Your task to perform on an android device: change notification settings in the gmail app Image 0: 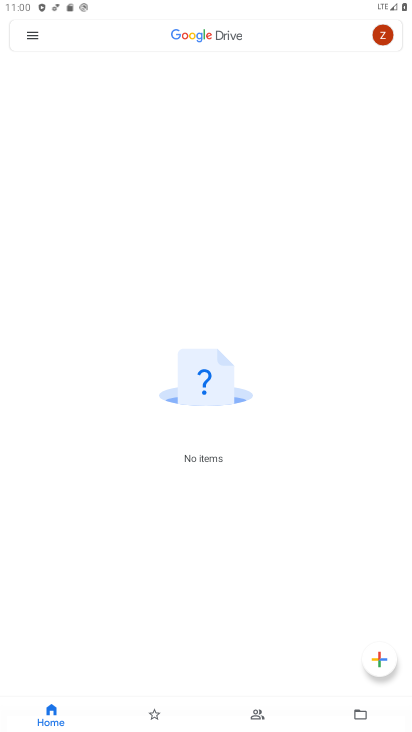
Step 0: drag from (286, 425) to (284, 9)
Your task to perform on an android device: change notification settings in the gmail app Image 1: 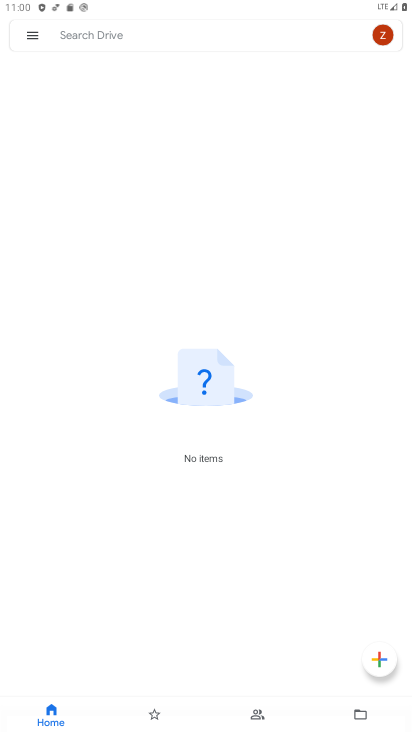
Step 1: press back button
Your task to perform on an android device: change notification settings in the gmail app Image 2: 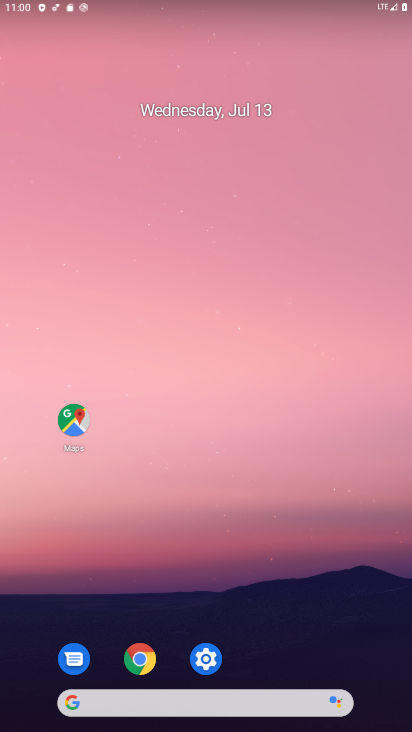
Step 2: drag from (276, 702) to (228, 3)
Your task to perform on an android device: change notification settings in the gmail app Image 3: 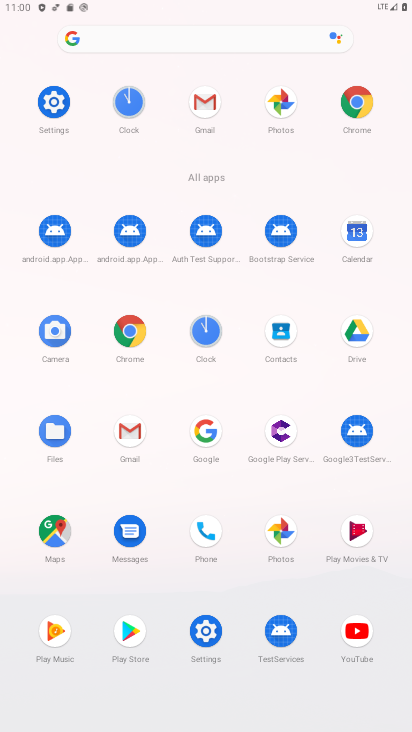
Step 3: click (213, 639)
Your task to perform on an android device: change notification settings in the gmail app Image 4: 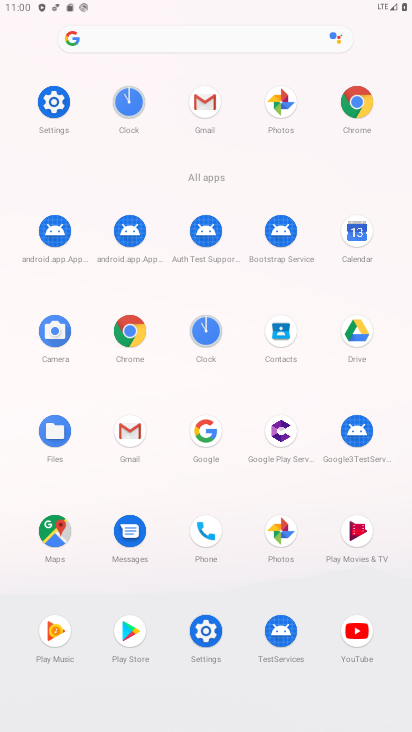
Step 4: click (214, 638)
Your task to perform on an android device: change notification settings in the gmail app Image 5: 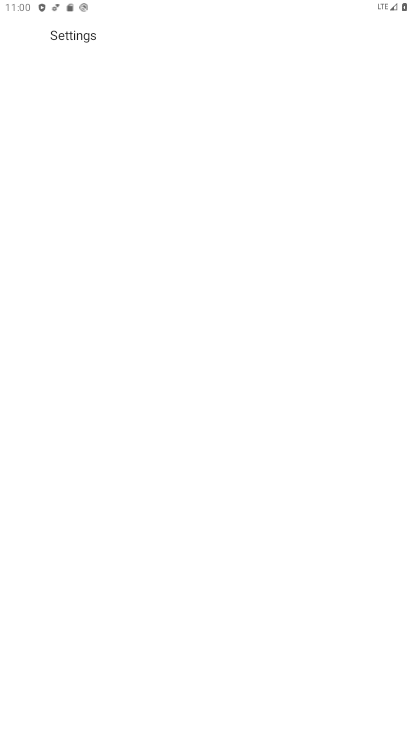
Step 5: click (215, 637)
Your task to perform on an android device: change notification settings in the gmail app Image 6: 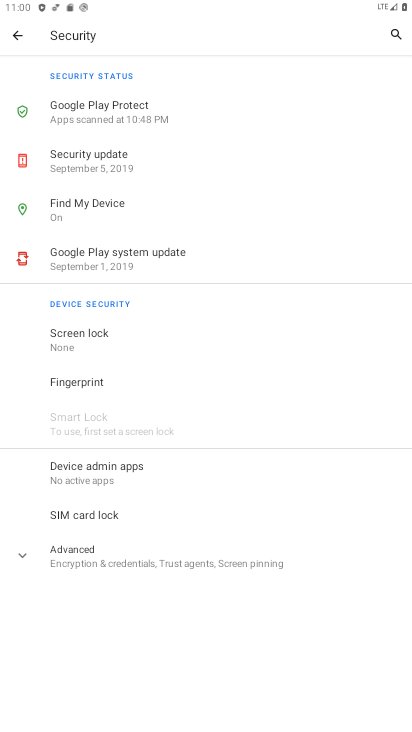
Step 6: click (23, 36)
Your task to perform on an android device: change notification settings in the gmail app Image 7: 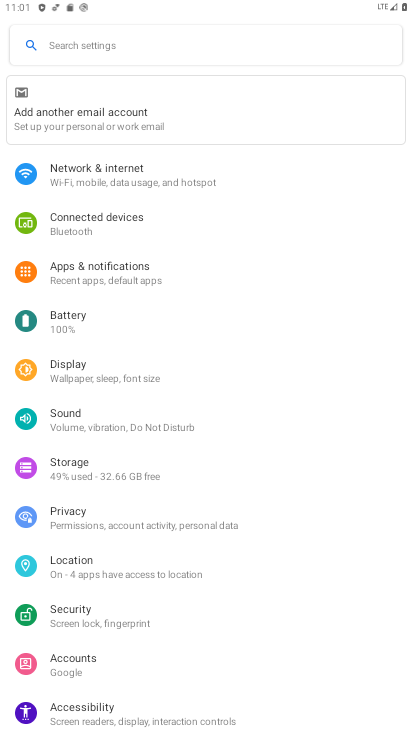
Step 7: press back button
Your task to perform on an android device: change notification settings in the gmail app Image 8: 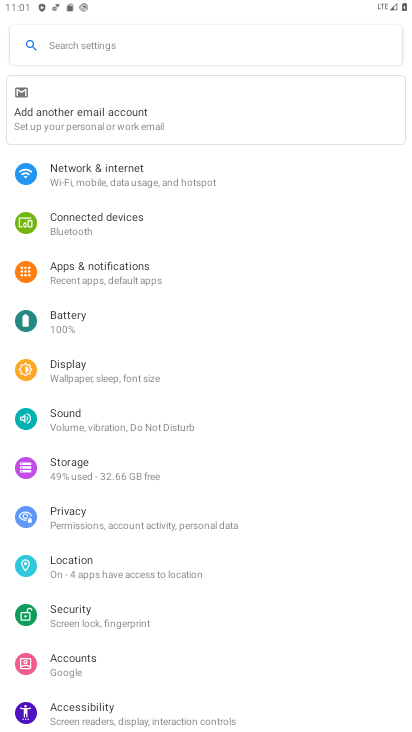
Step 8: press back button
Your task to perform on an android device: change notification settings in the gmail app Image 9: 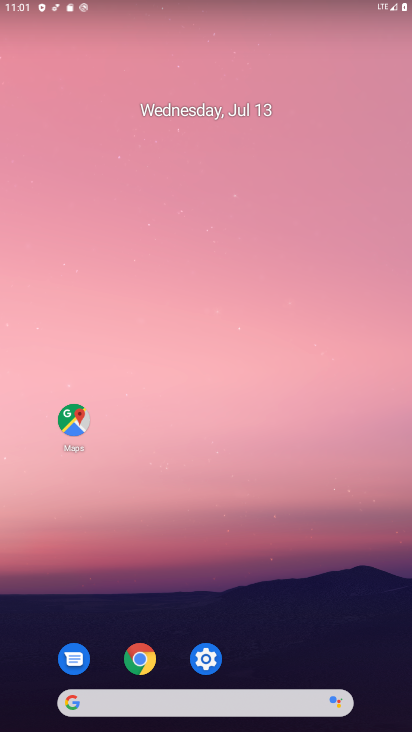
Step 9: click (183, 194)
Your task to perform on an android device: change notification settings in the gmail app Image 10: 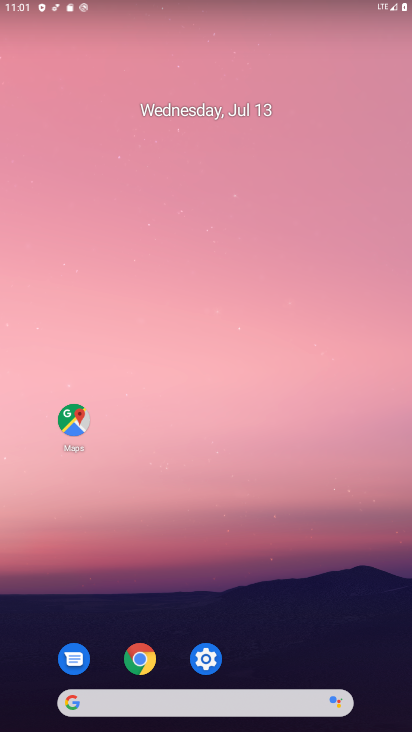
Step 10: click (194, 43)
Your task to perform on an android device: change notification settings in the gmail app Image 11: 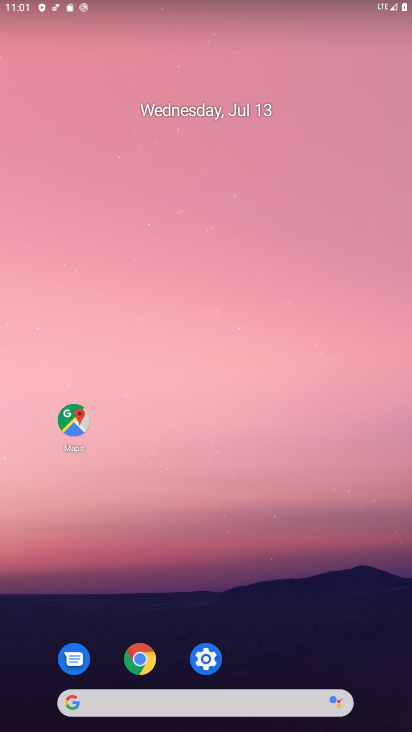
Step 11: click (141, 51)
Your task to perform on an android device: change notification settings in the gmail app Image 12: 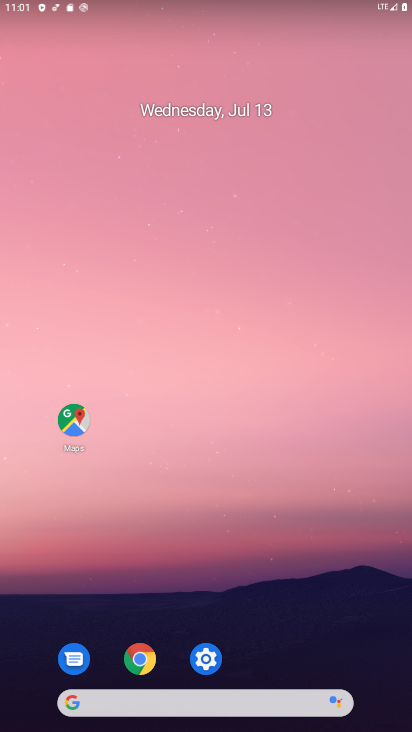
Step 12: drag from (196, 561) to (90, 13)
Your task to perform on an android device: change notification settings in the gmail app Image 13: 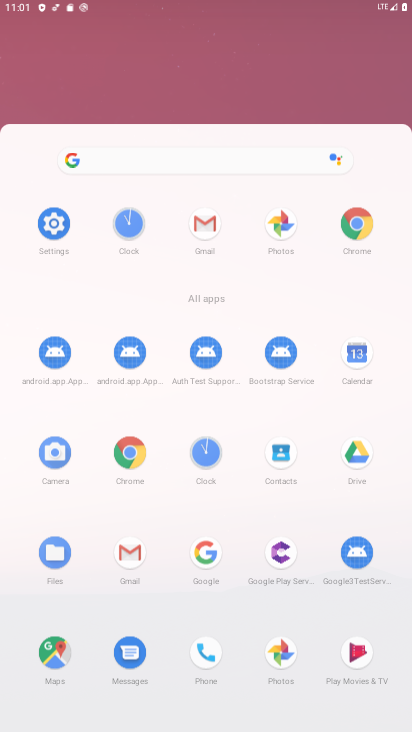
Step 13: drag from (242, 655) to (219, 318)
Your task to perform on an android device: change notification settings in the gmail app Image 14: 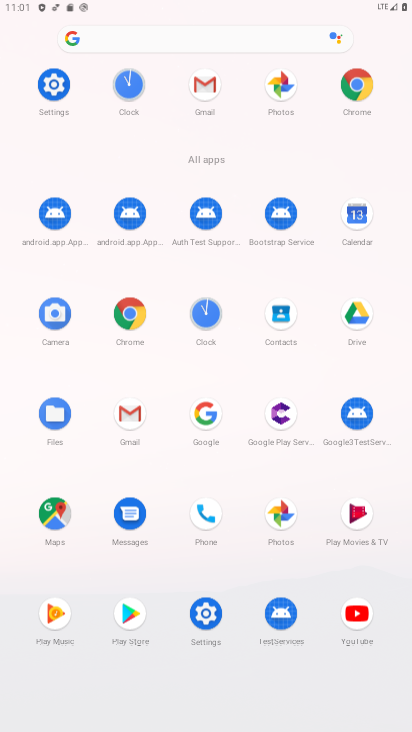
Step 14: drag from (258, 728) to (273, 269)
Your task to perform on an android device: change notification settings in the gmail app Image 15: 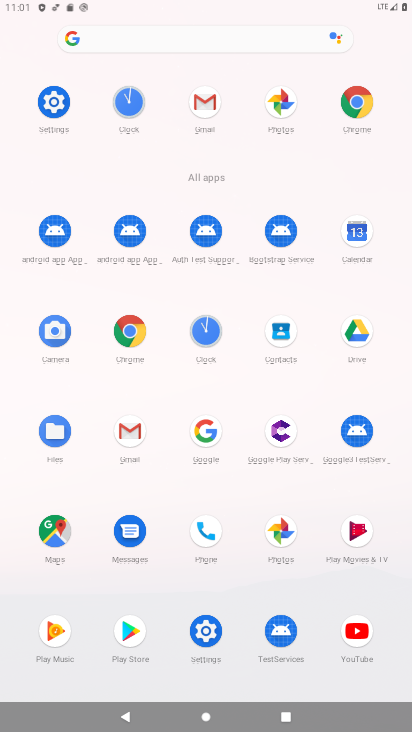
Step 15: click (123, 434)
Your task to perform on an android device: change notification settings in the gmail app Image 16: 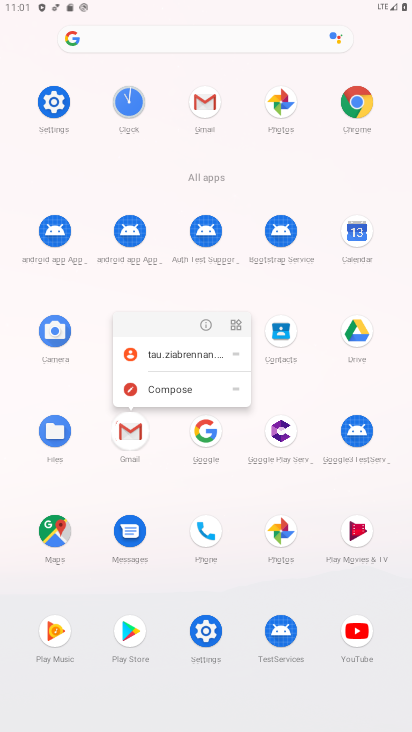
Step 16: click (128, 432)
Your task to perform on an android device: change notification settings in the gmail app Image 17: 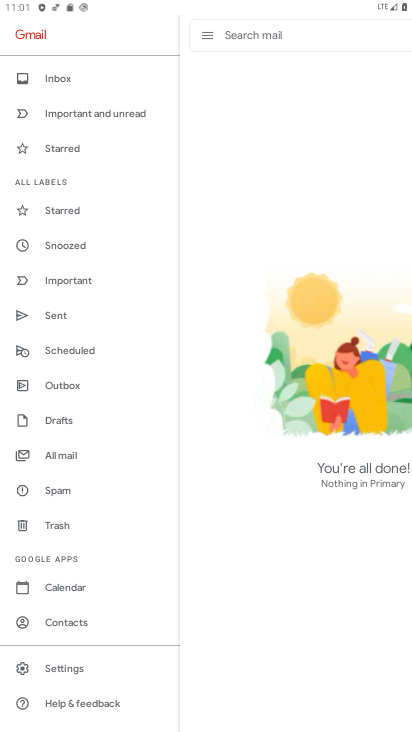
Step 17: click (127, 427)
Your task to perform on an android device: change notification settings in the gmail app Image 18: 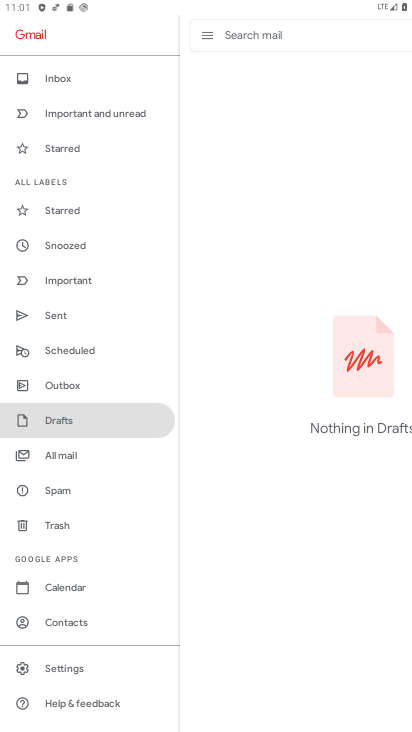
Step 18: click (74, 667)
Your task to perform on an android device: change notification settings in the gmail app Image 19: 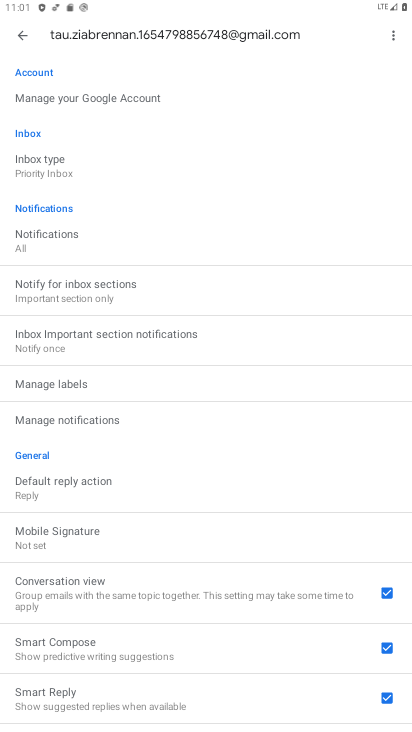
Step 19: click (48, 231)
Your task to perform on an android device: change notification settings in the gmail app Image 20: 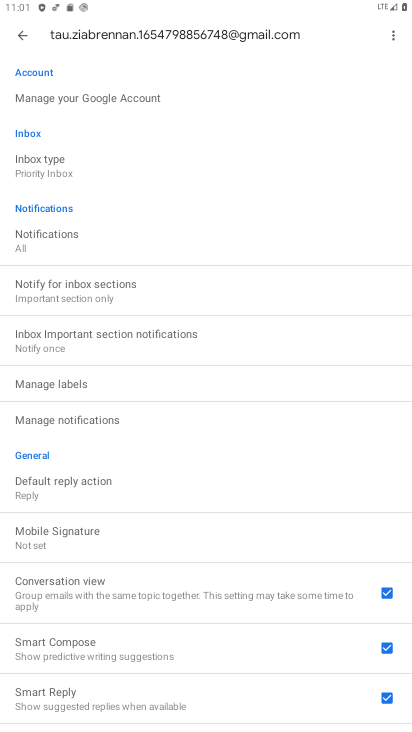
Step 20: click (48, 231)
Your task to perform on an android device: change notification settings in the gmail app Image 21: 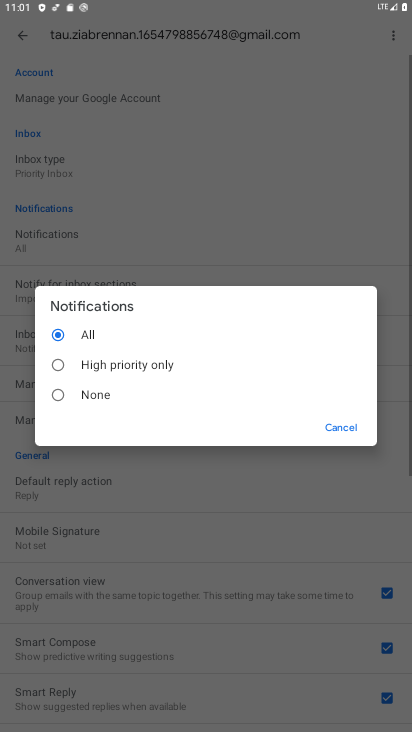
Step 21: click (52, 232)
Your task to perform on an android device: change notification settings in the gmail app Image 22: 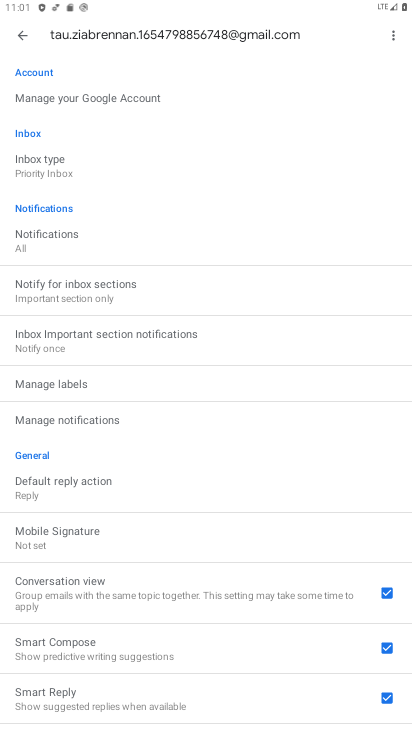
Step 22: click (48, 233)
Your task to perform on an android device: change notification settings in the gmail app Image 23: 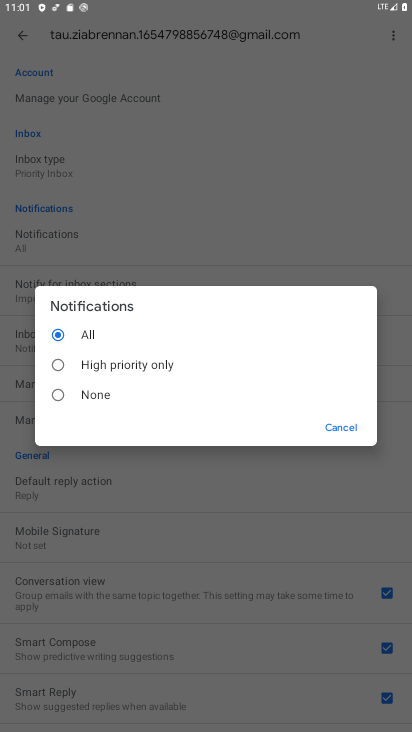
Step 23: click (56, 357)
Your task to perform on an android device: change notification settings in the gmail app Image 24: 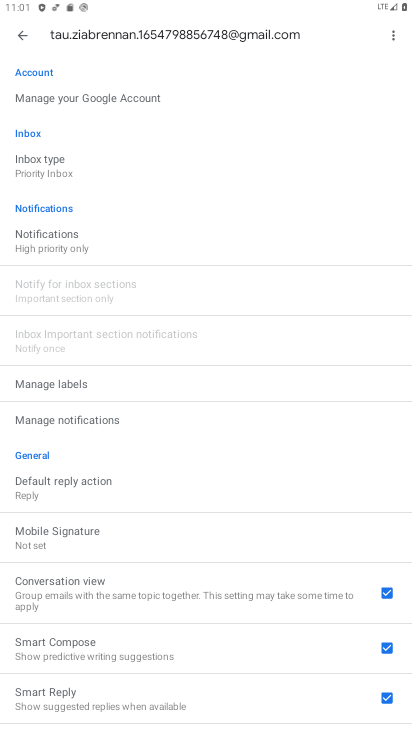
Step 24: task complete